Your task to perform on an android device: Open Android settings Image 0: 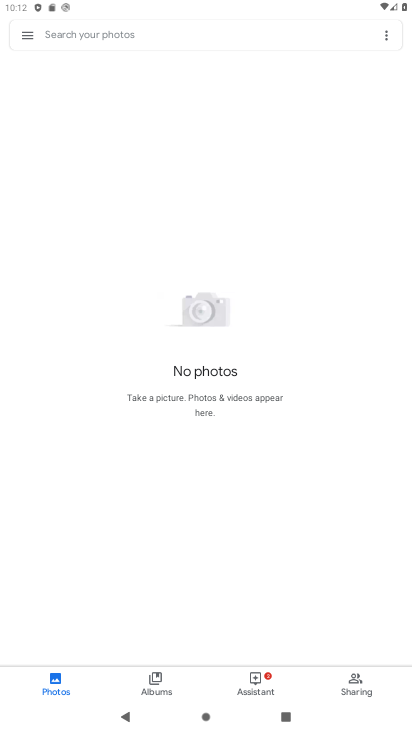
Step 0: press home button
Your task to perform on an android device: Open Android settings Image 1: 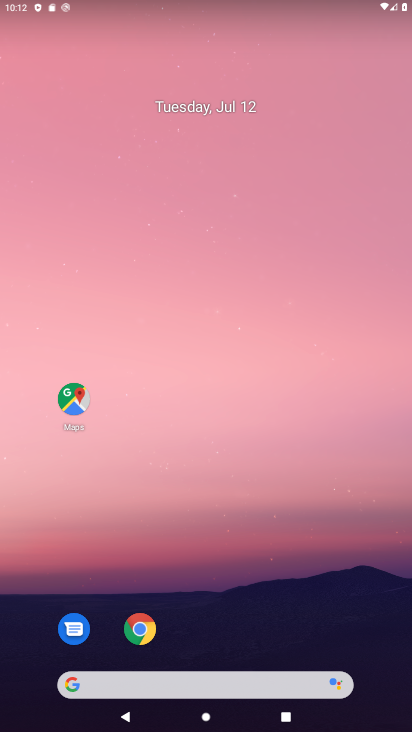
Step 1: drag from (327, 584) to (329, 146)
Your task to perform on an android device: Open Android settings Image 2: 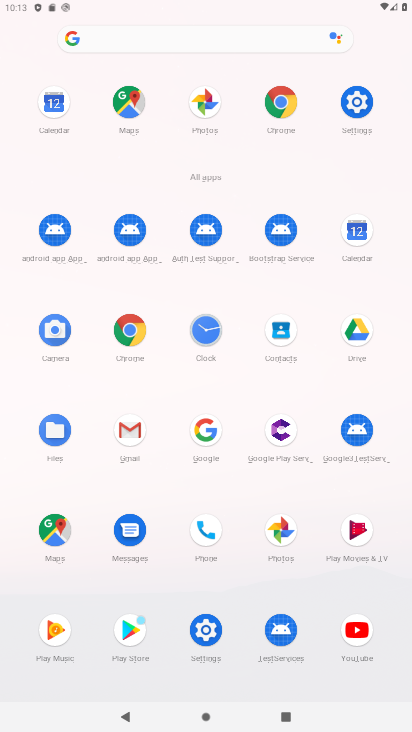
Step 2: click (218, 632)
Your task to perform on an android device: Open Android settings Image 3: 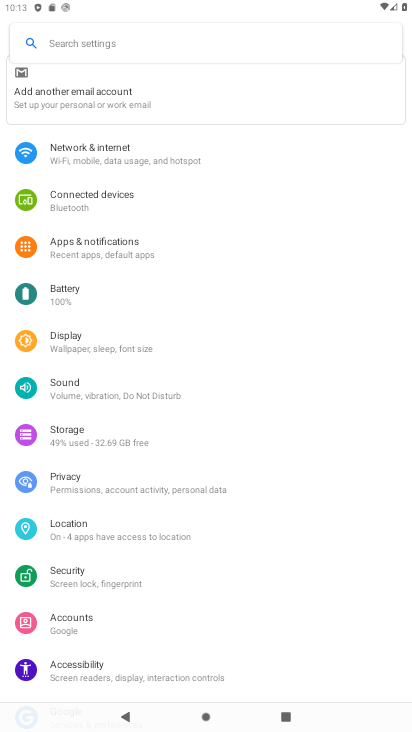
Step 3: task complete